Your task to perform on an android device: Open calendar and show me the third week of next month Image 0: 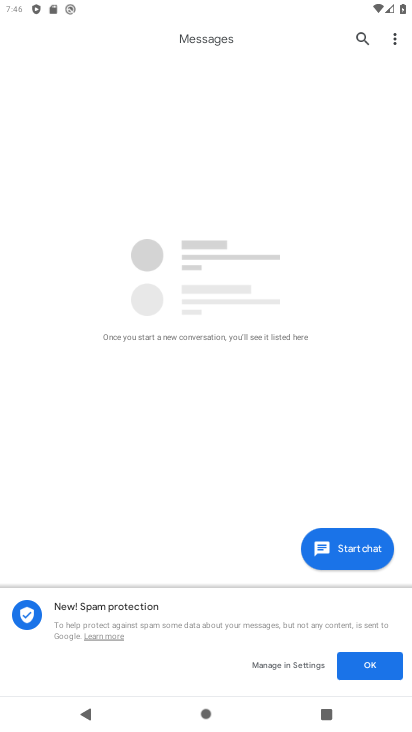
Step 0: press home button
Your task to perform on an android device: Open calendar and show me the third week of next month Image 1: 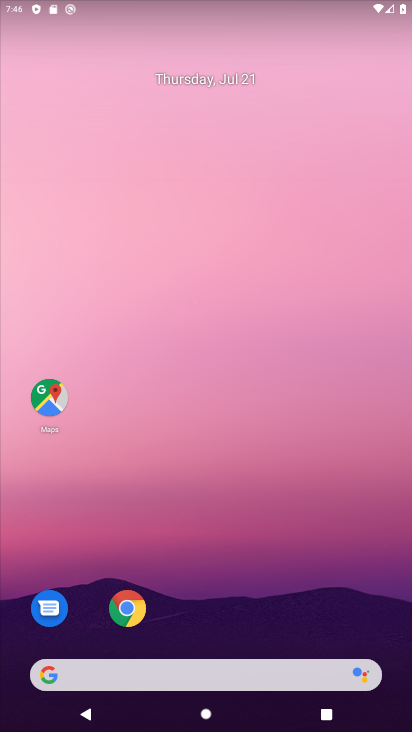
Step 1: drag from (195, 610) to (232, 137)
Your task to perform on an android device: Open calendar and show me the third week of next month Image 2: 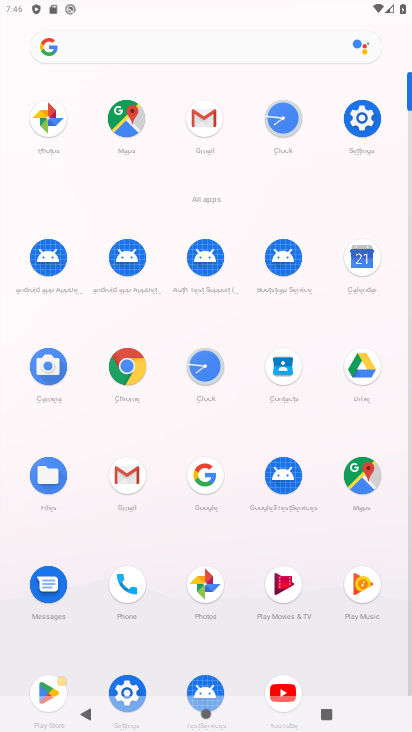
Step 2: click (357, 255)
Your task to perform on an android device: Open calendar and show me the third week of next month Image 3: 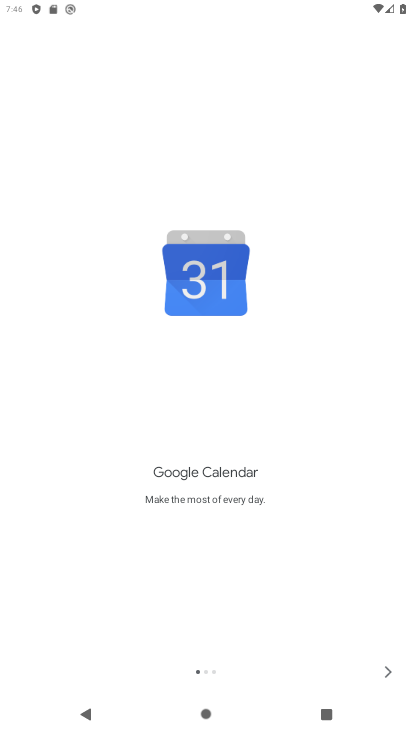
Step 3: click (383, 664)
Your task to perform on an android device: Open calendar and show me the third week of next month Image 4: 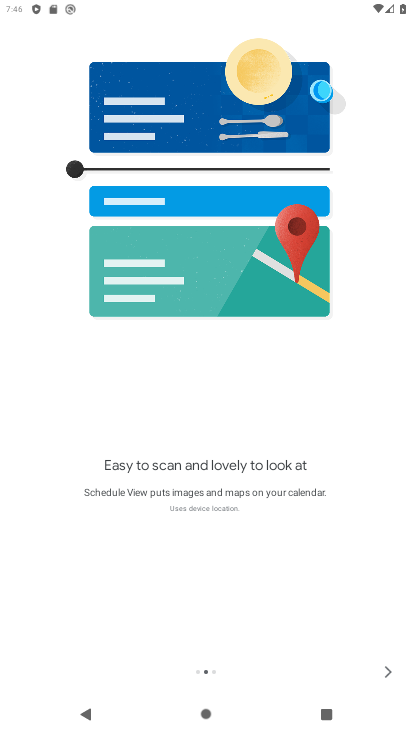
Step 4: click (382, 668)
Your task to perform on an android device: Open calendar and show me the third week of next month Image 5: 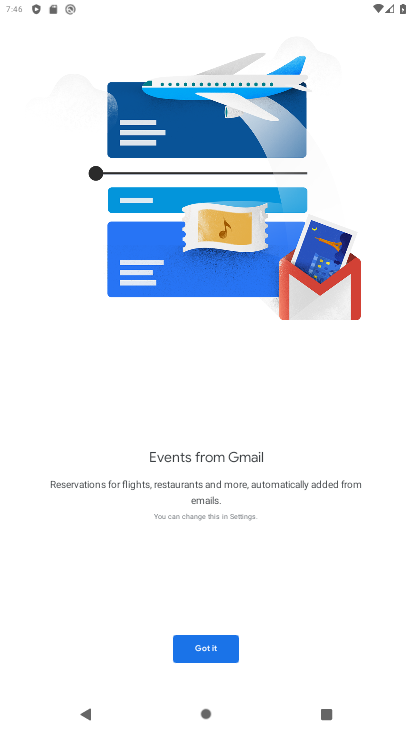
Step 5: click (193, 644)
Your task to perform on an android device: Open calendar and show me the third week of next month Image 6: 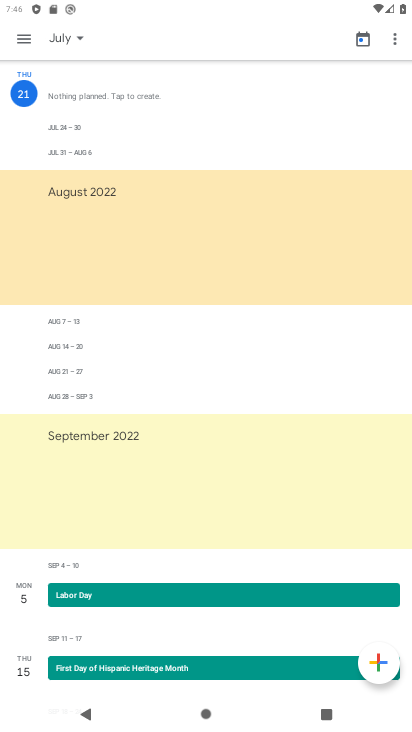
Step 6: click (24, 29)
Your task to perform on an android device: Open calendar and show me the third week of next month Image 7: 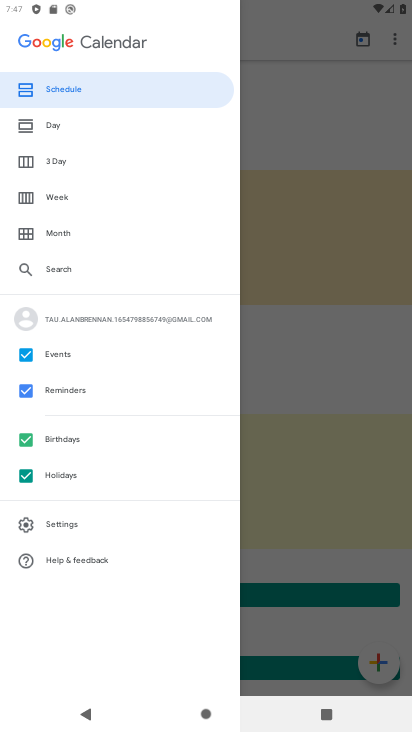
Step 7: click (61, 193)
Your task to perform on an android device: Open calendar and show me the third week of next month Image 8: 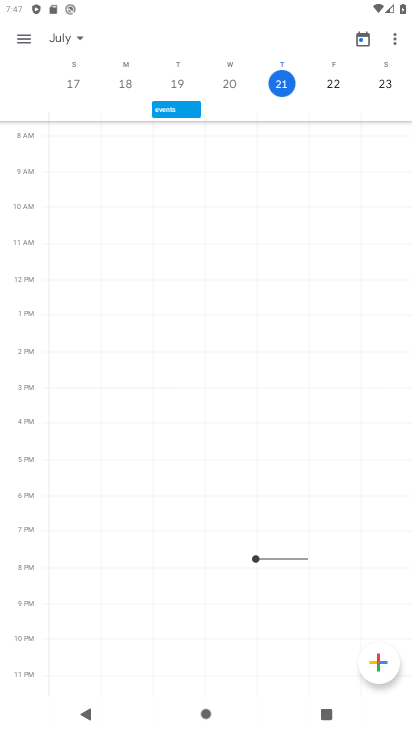
Step 8: click (78, 38)
Your task to perform on an android device: Open calendar and show me the third week of next month Image 9: 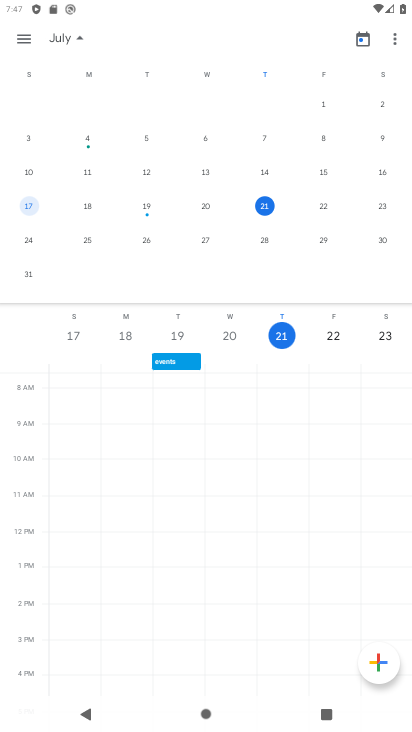
Step 9: drag from (361, 185) to (0, 186)
Your task to perform on an android device: Open calendar and show me the third week of next month Image 10: 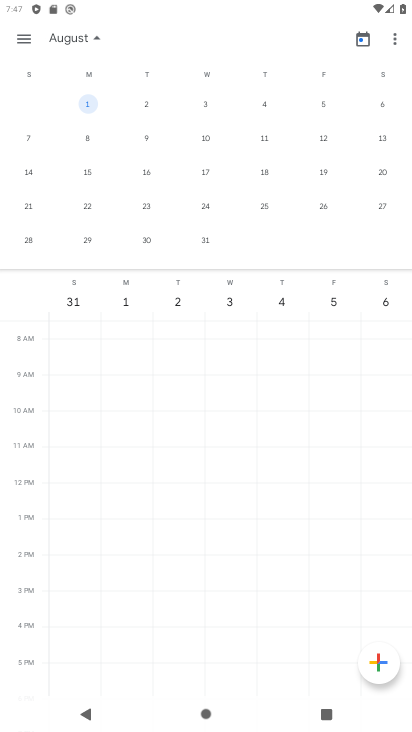
Step 10: click (24, 170)
Your task to perform on an android device: Open calendar and show me the third week of next month Image 11: 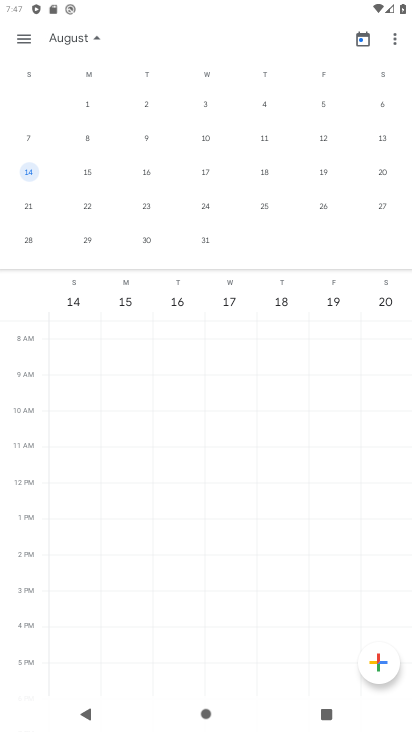
Step 11: click (95, 34)
Your task to perform on an android device: Open calendar and show me the third week of next month Image 12: 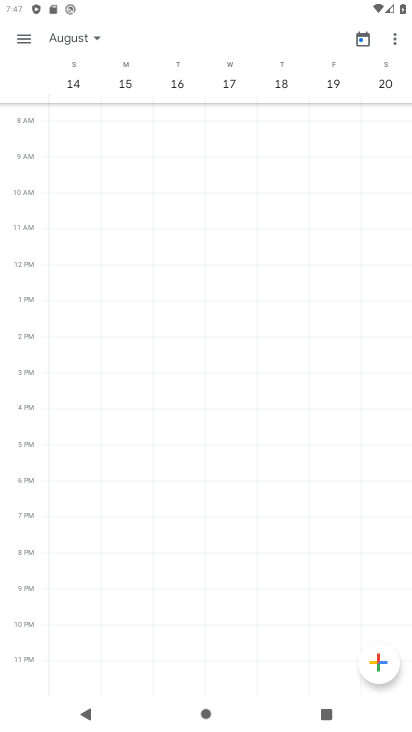
Step 12: click (71, 84)
Your task to perform on an android device: Open calendar and show me the third week of next month Image 13: 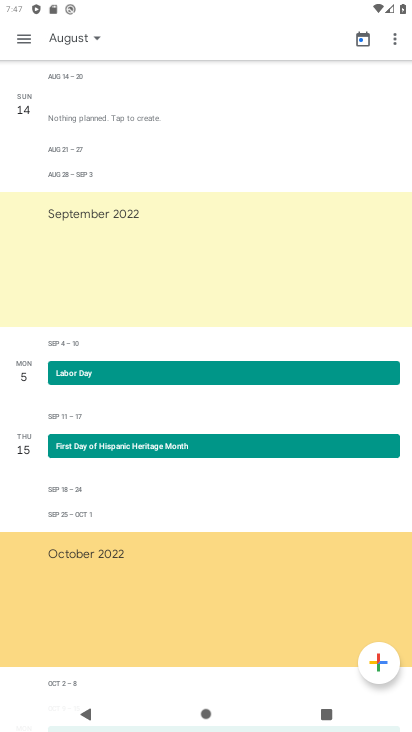
Step 13: task complete